Your task to perform on an android device: Find coffee shops on Maps Image 0: 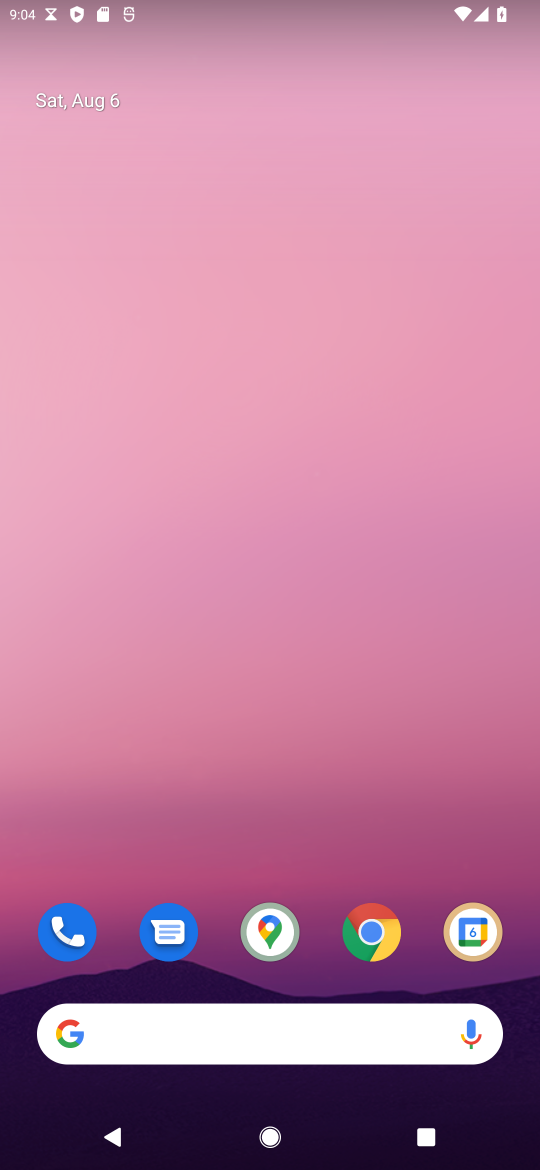
Step 0: click (267, 929)
Your task to perform on an android device: Find coffee shops on Maps Image 1: 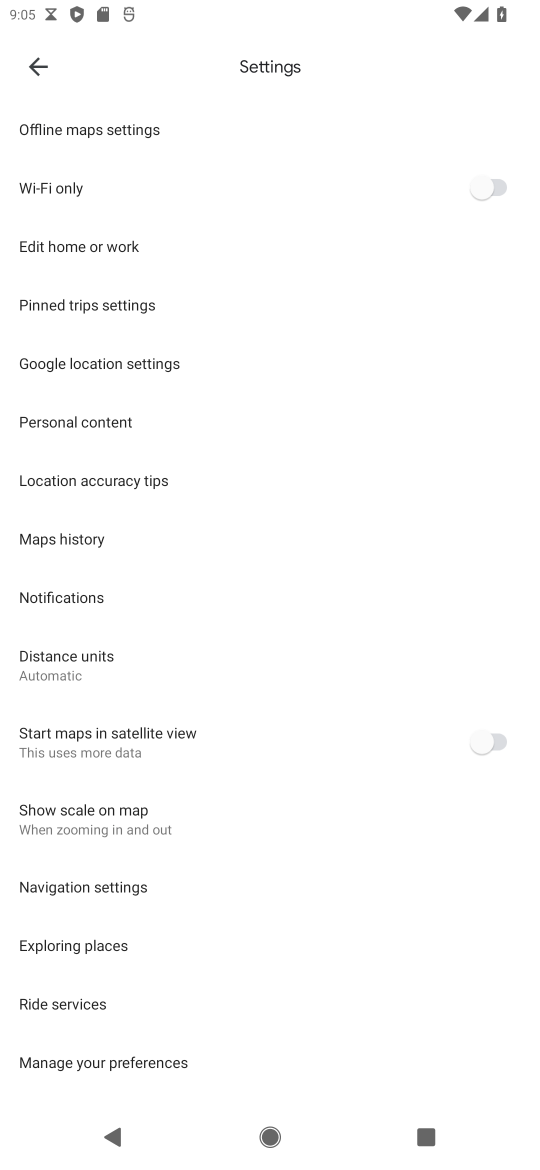
Step 1: press back button
Your task to perform on an android device: Find coffee shops on Maps Image 2: 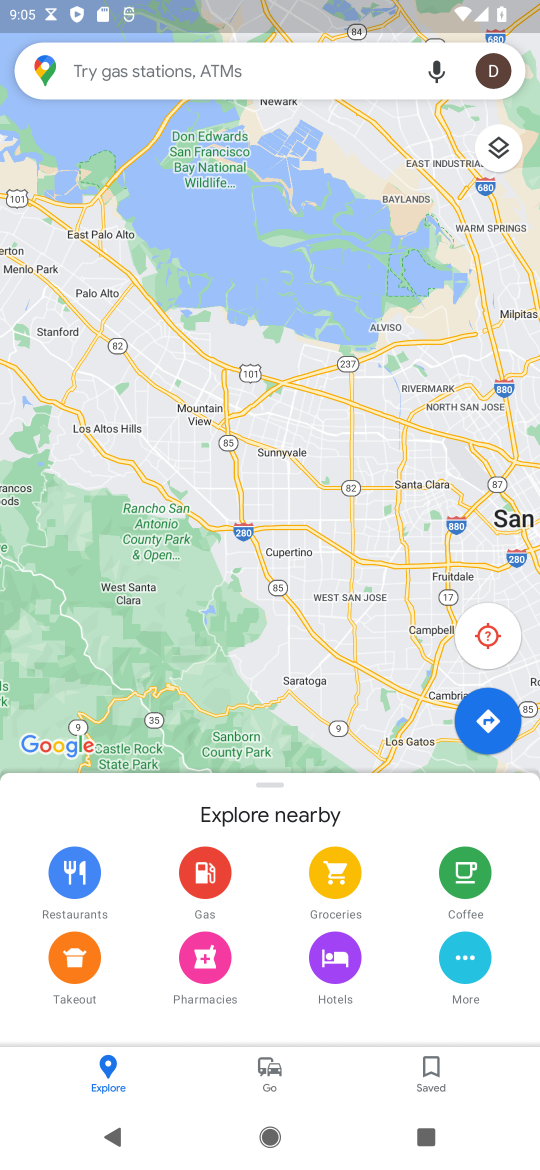
Step 2: click (189, 77)
Your task to perform on an android device: Find coffee shops on Maps Image 3: 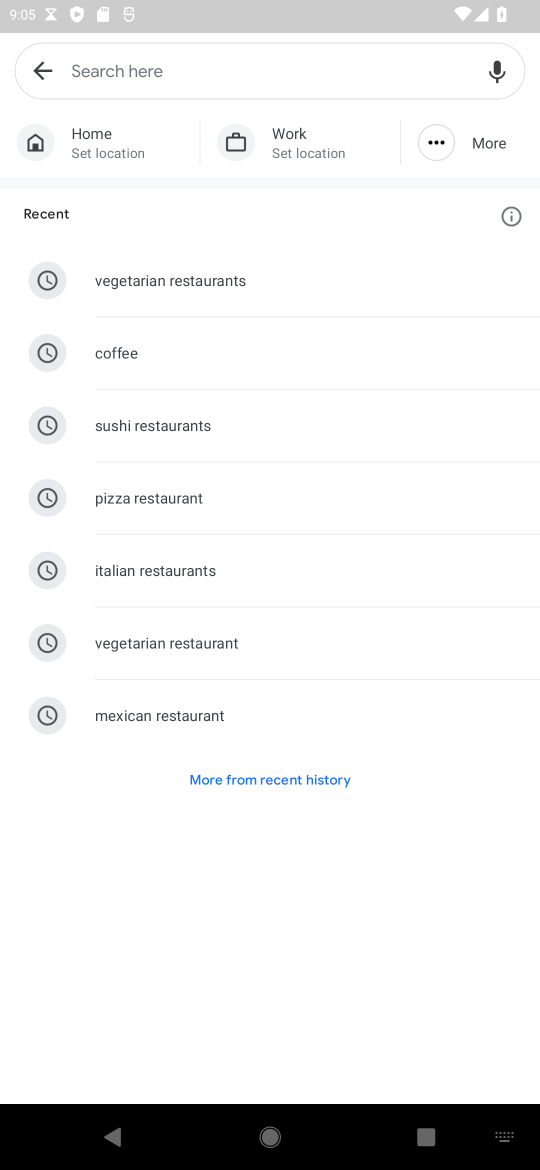
Step 3: type "coffee shops"
Your task to perform on an android device: Find coffee shops on Maps Image 4: 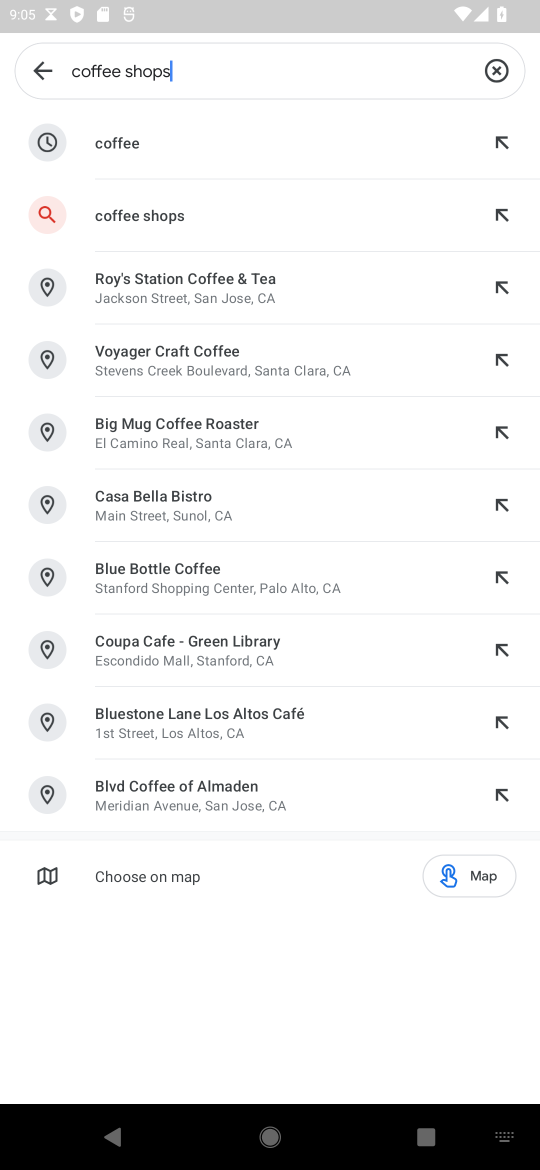
Step 4: click (131, 221)
Your task to perform on an android device: Find coffee shops on Maps Image 5: 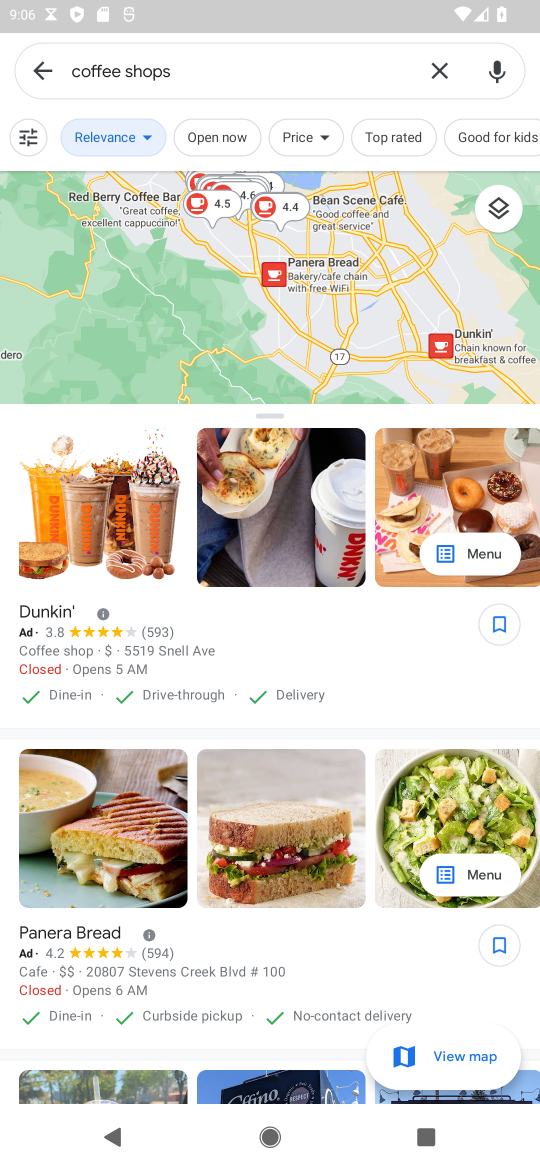
Step 5: task complete